Your task to perform on an android device: Open settings on Google Maps Image 0: 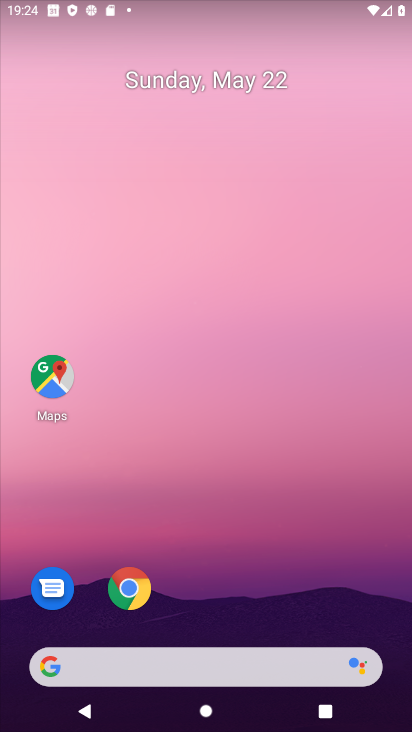
Step 0: click (44, 380)
Your task to perform on an android device: Open settings on Google Maps Image 1: 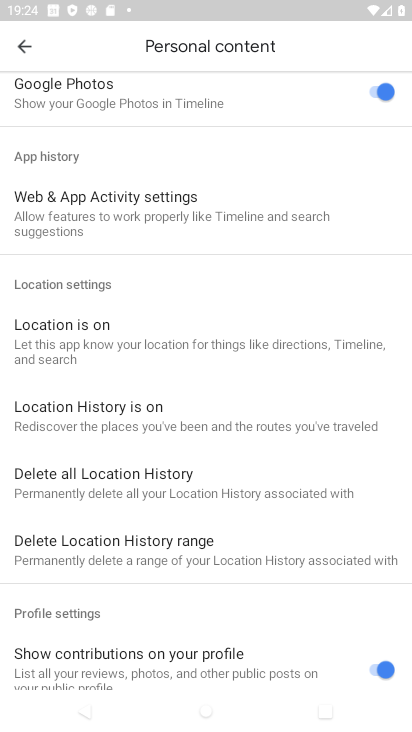
Step 1: click (23, 41)
Your task to perform on an android device: Open settings on Google Maps Image 2: 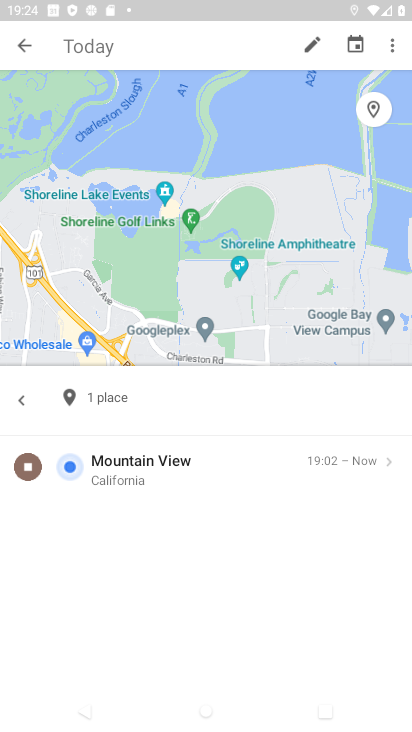
Step 2: click (23, 49)
Your task to perform on an android device: Open settings on Google Maps Image 3: 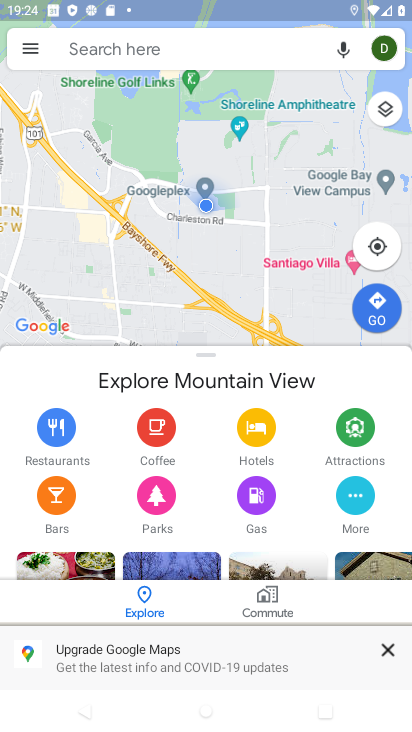
Step 3: click (29, 49)
Your task to perform on an android device: Open settings on Google Maps Image 4: 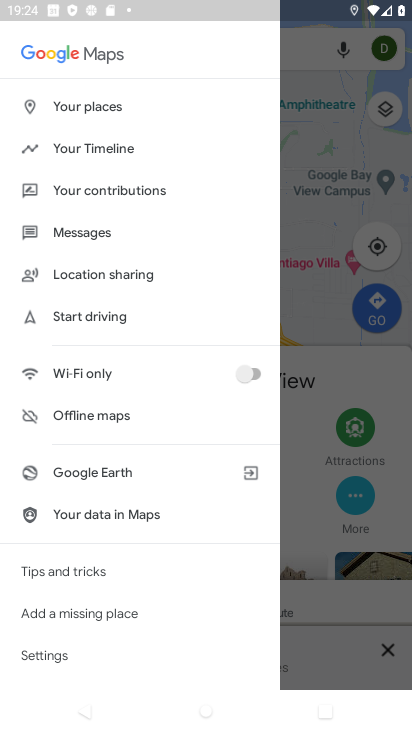
Step 4: click (42, 652)
Your task to perform on an android device: Open settings on Google Maps Image 5: 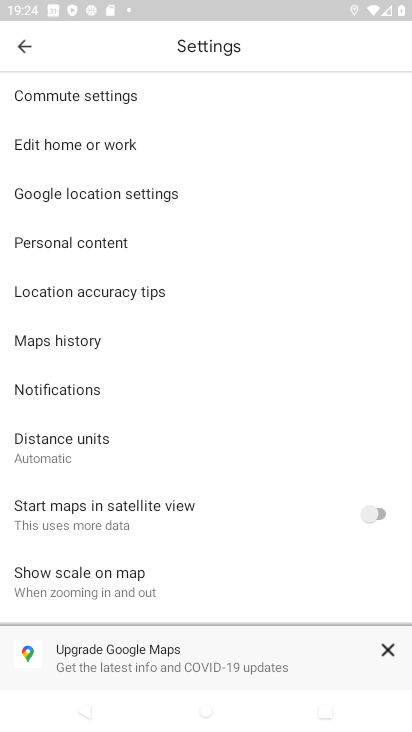
Step 5: task complete